Your task to perform on an android device: turn on location history Image 0: 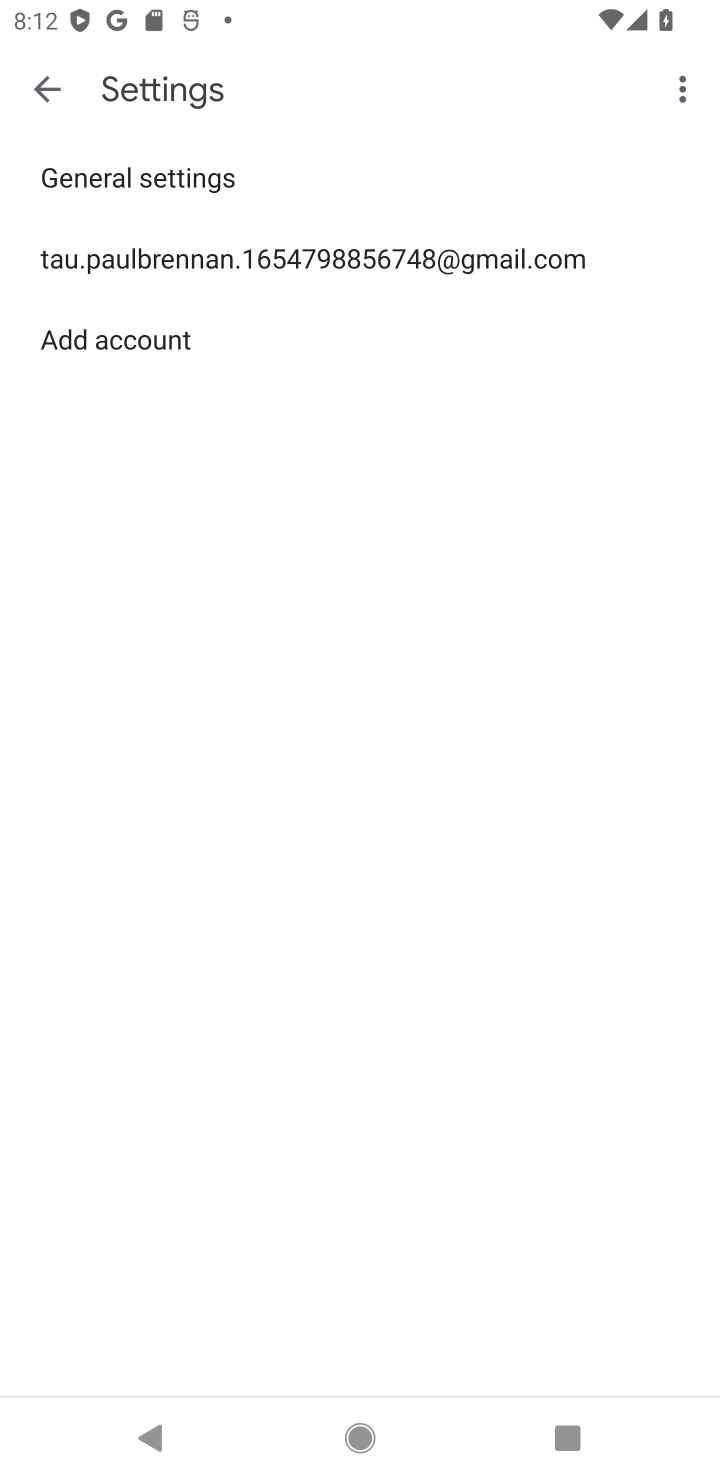
Step 0: press home button
Your task to perform on an android device: turn on location history Image 1: 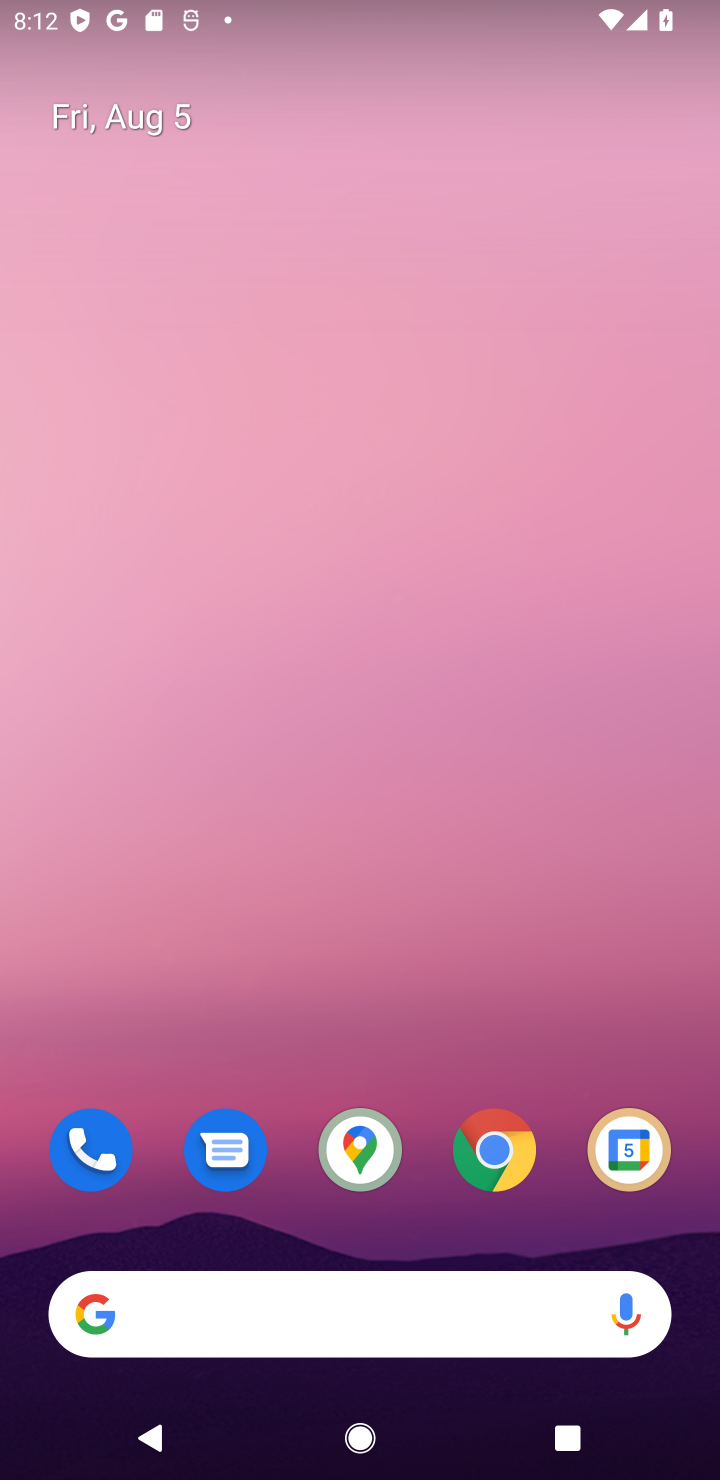
Step 1: drag from (276, 1091) to (330, 279)
Your task to perform on an android device: turn on location history Image 2: 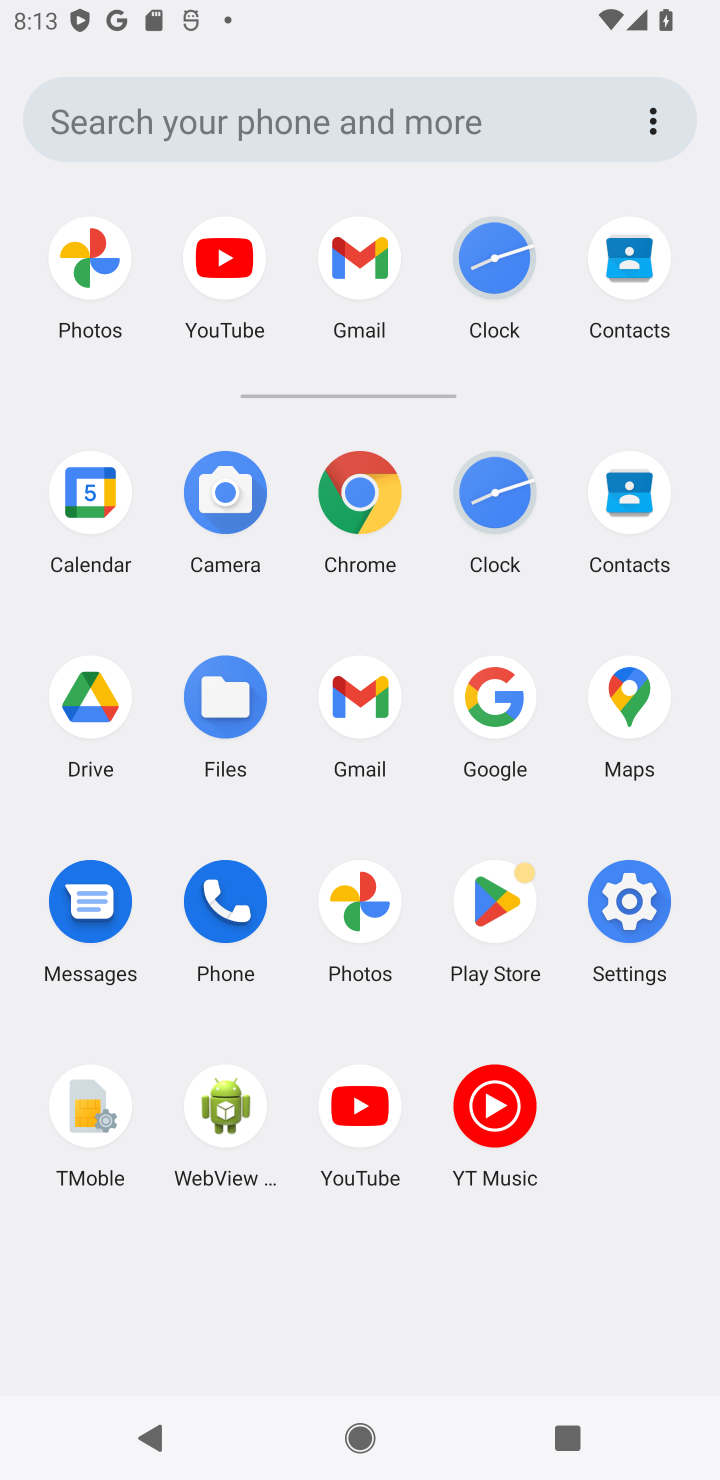
Step 2: click (630, 911)
Your task to perform on an android device: turn on location history Image 3: 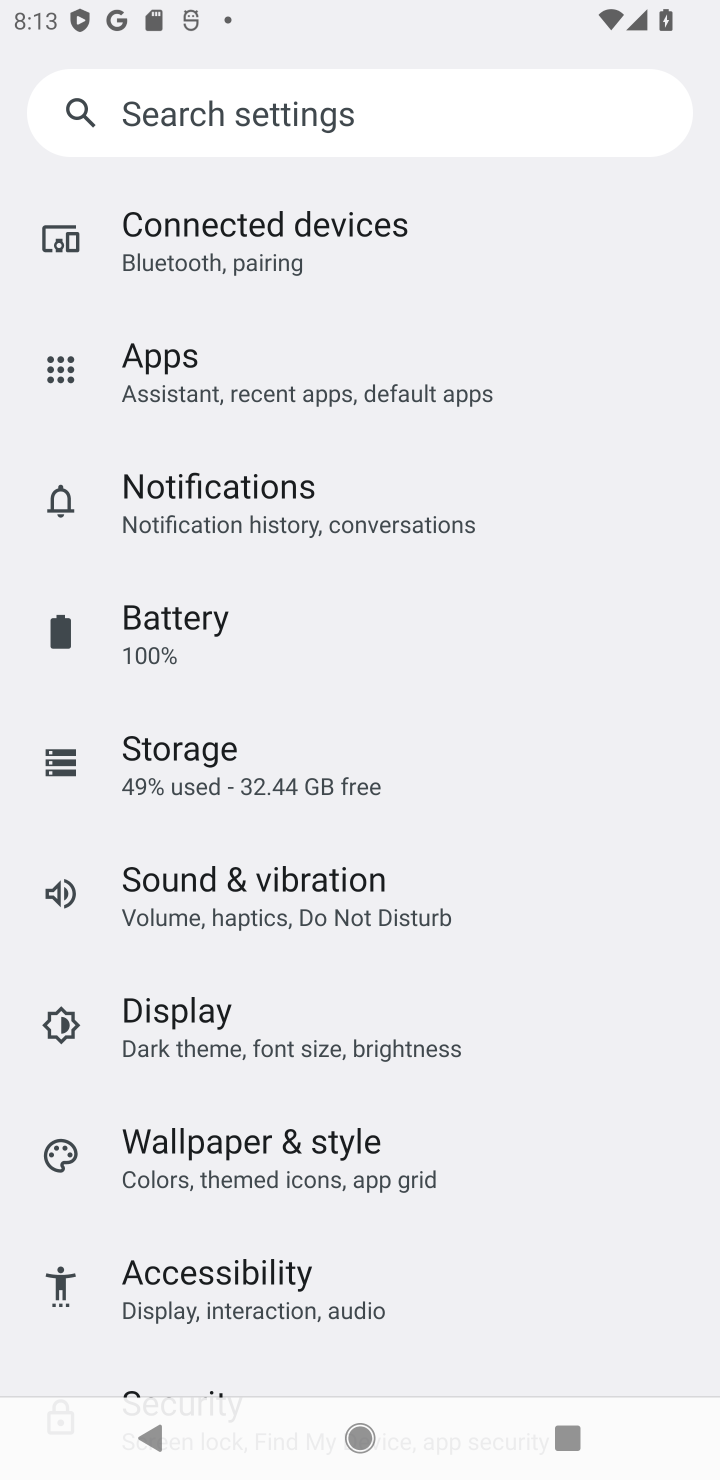
Step 3: drag from (614, 342) to (634, 781)
Your task to perform on an android device: turn on location history Image 4: 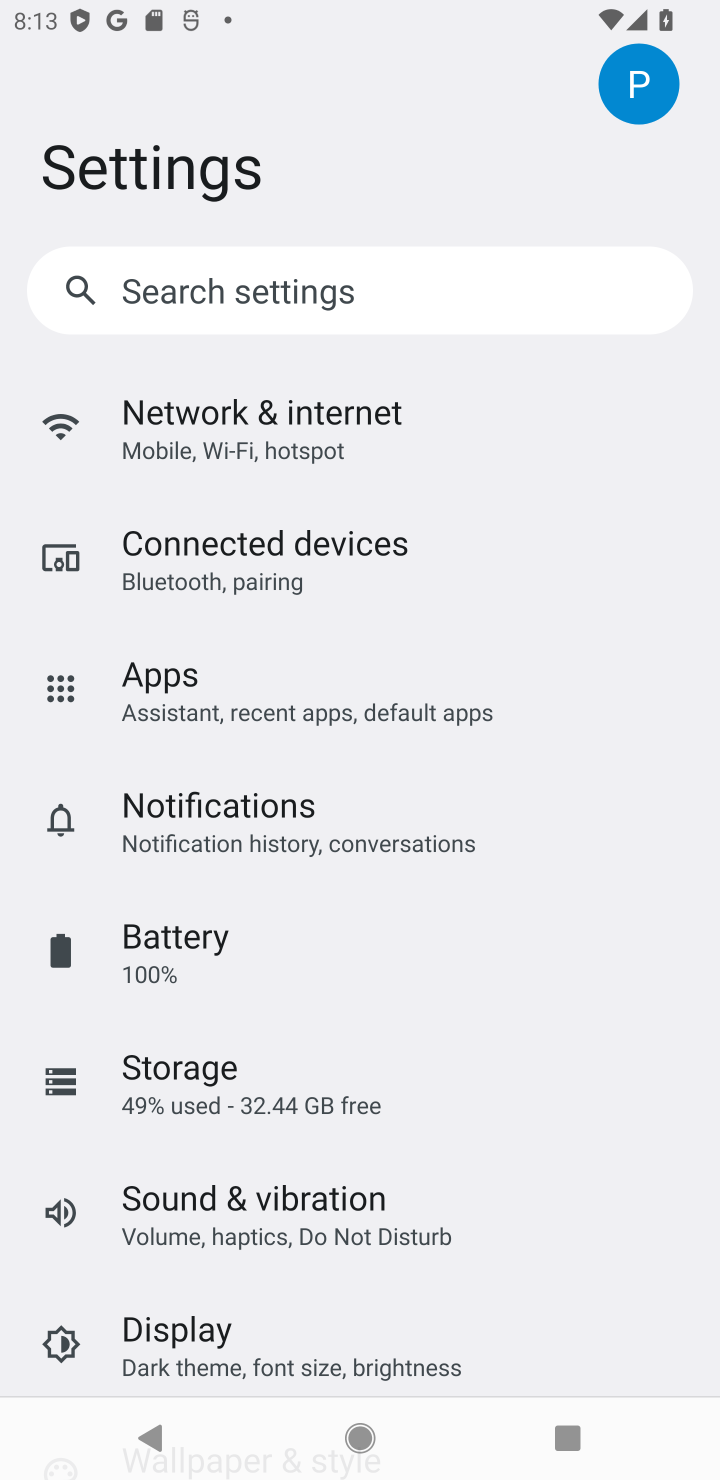
Step 4: drag from (601, 413) to (595, 878)
Your task to perform on an android device: turn on location history Image 5: 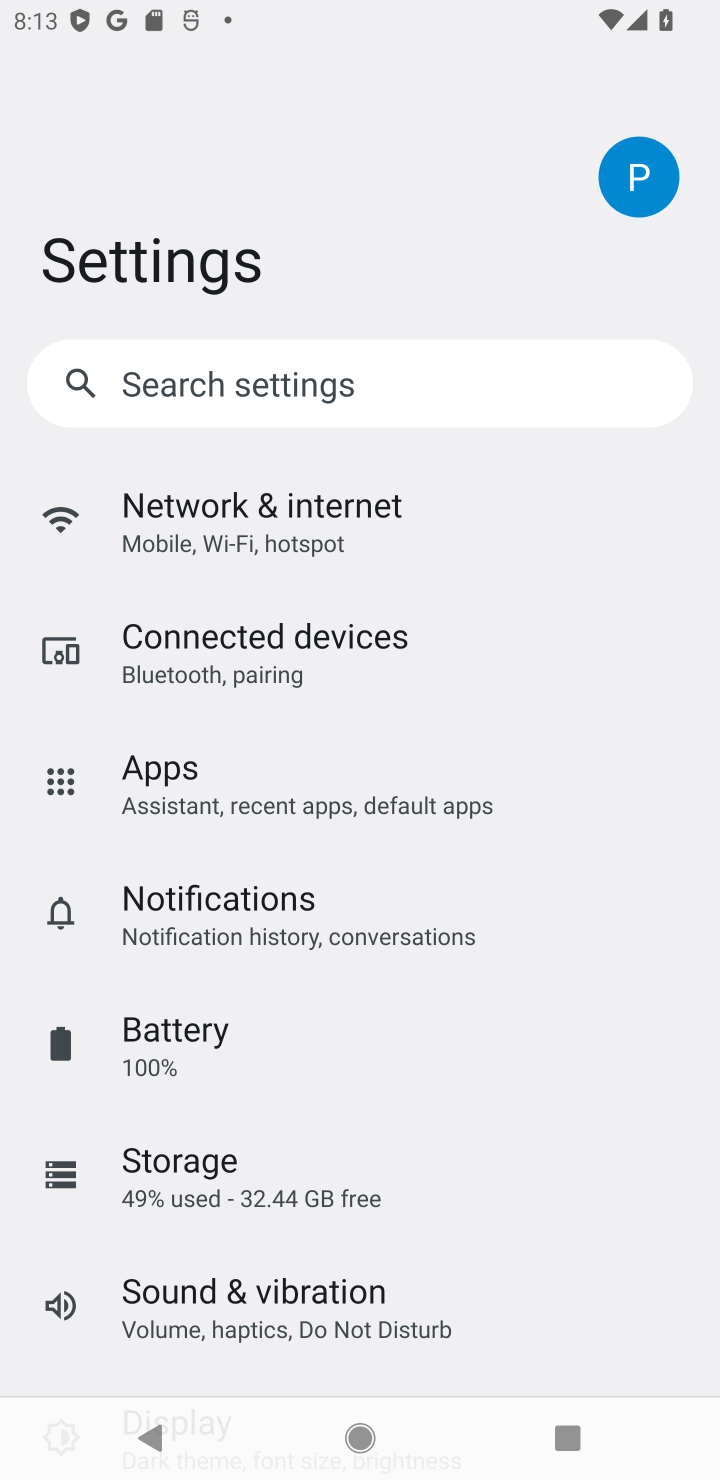
Step 5: drag from (581, 851) to (586, 471)
Your task to perform on an android device: turn on location history Image 6: 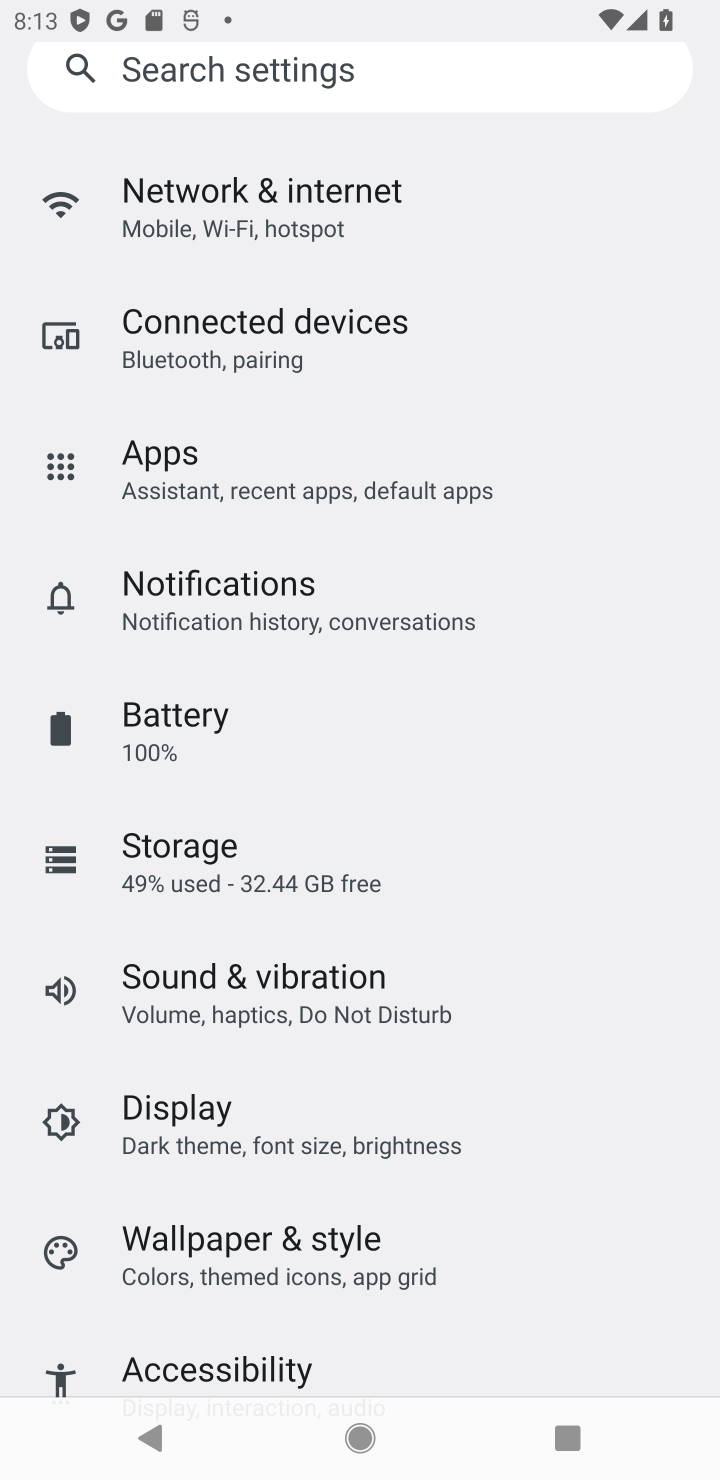
Step 6: drag from (586, 805) to (576, 544)
Your task to perform on an android device: turn on location history Image 7: 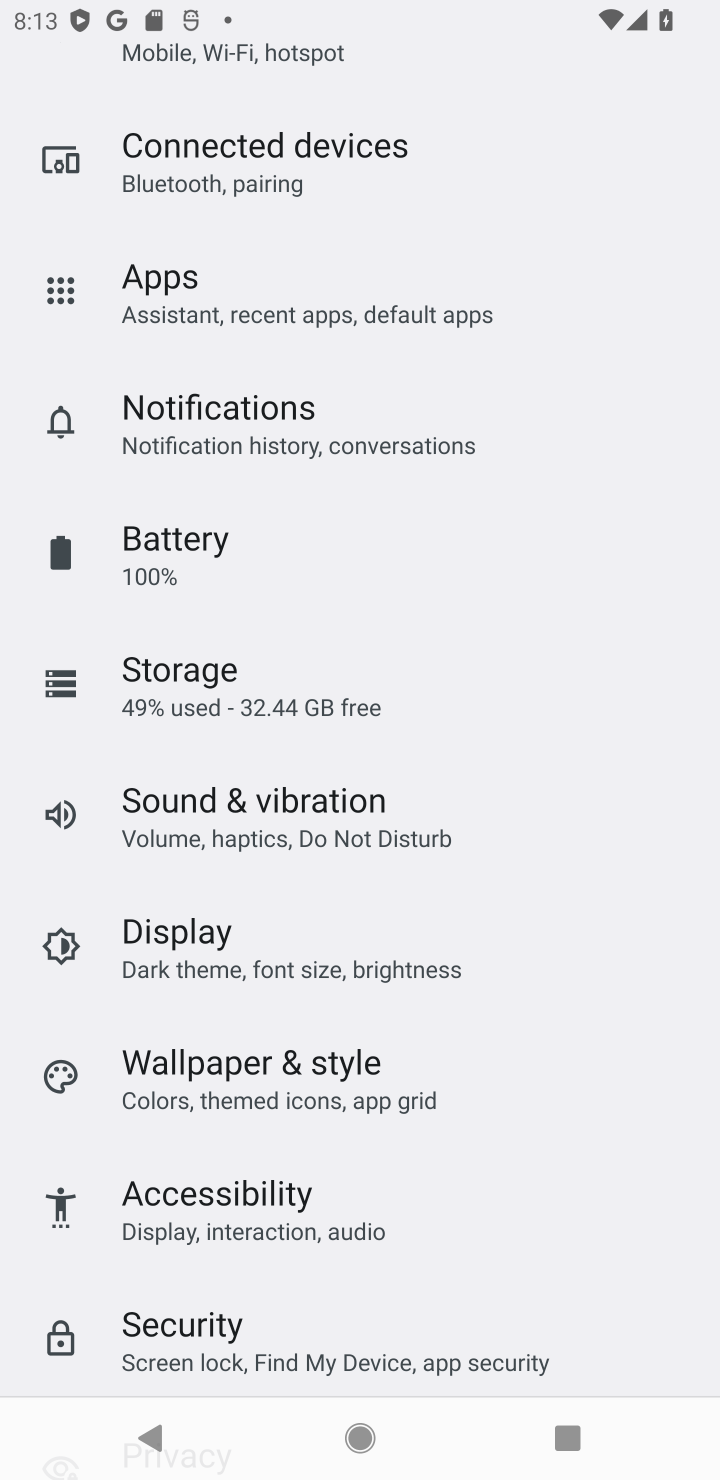
Step 7: drag from (578, 893) to (566, 458)
Your task to perform on an android device: turn on location history Image 8: 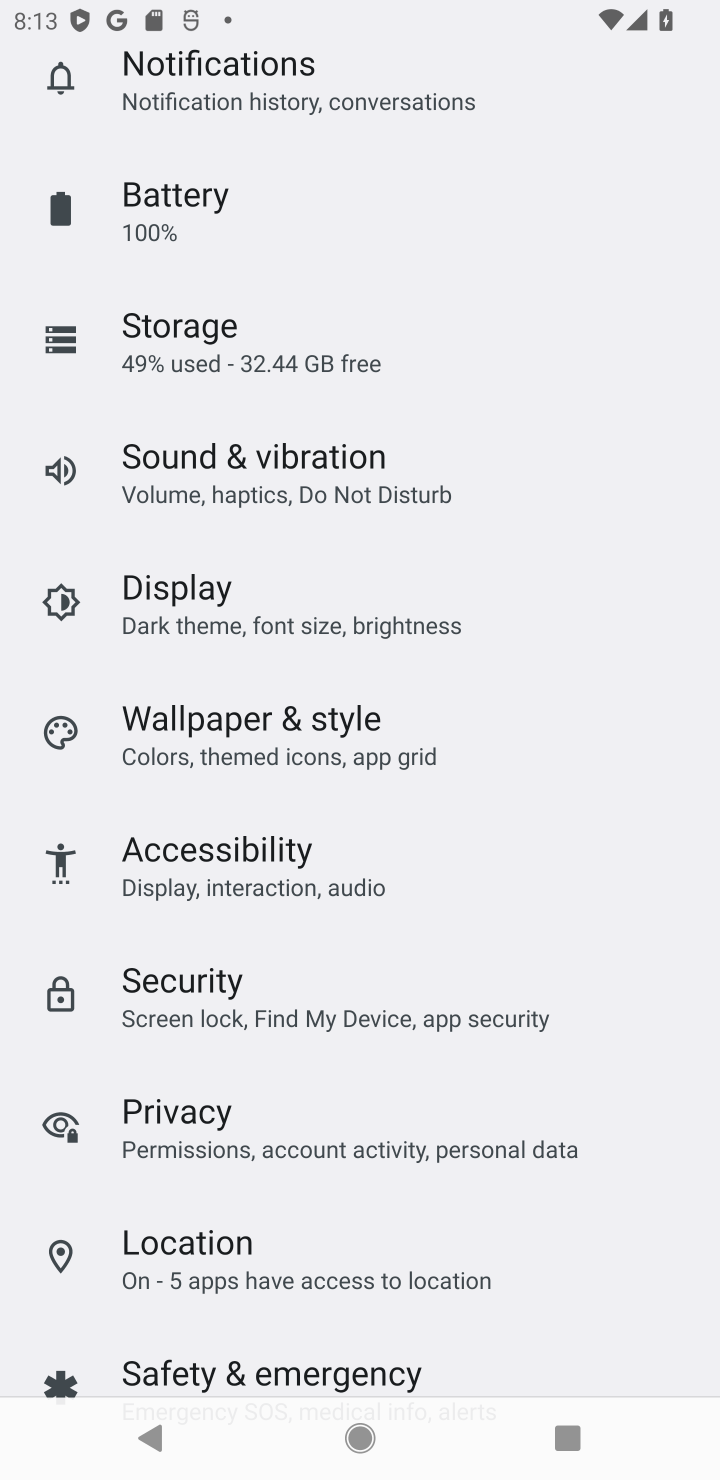
Step 8: drag from (574, 837) to (585, 573)
Your task to perform on an android device: turn on location history Image 9: 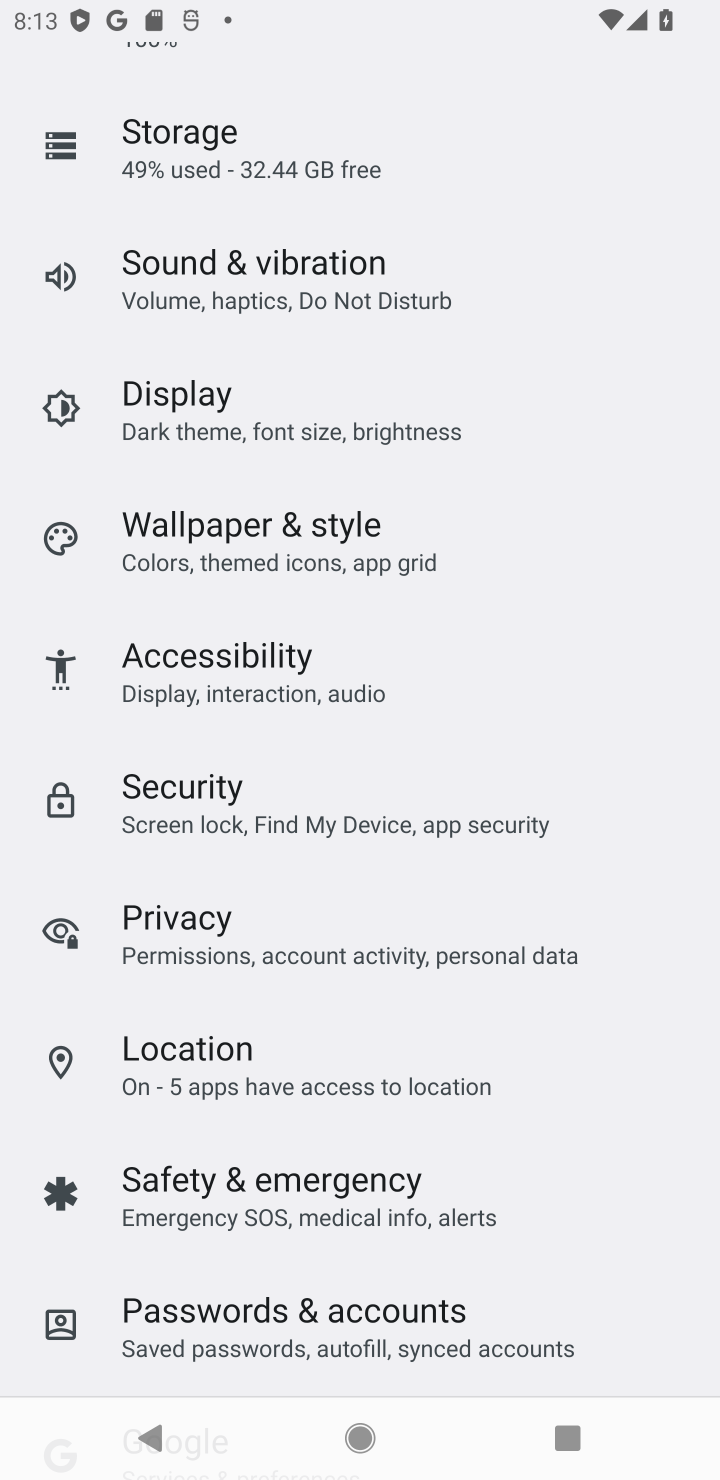
Step 9: drag from (585, 866) to (592, 601)
Your task to perform on an android device: turn on location history Image 10: 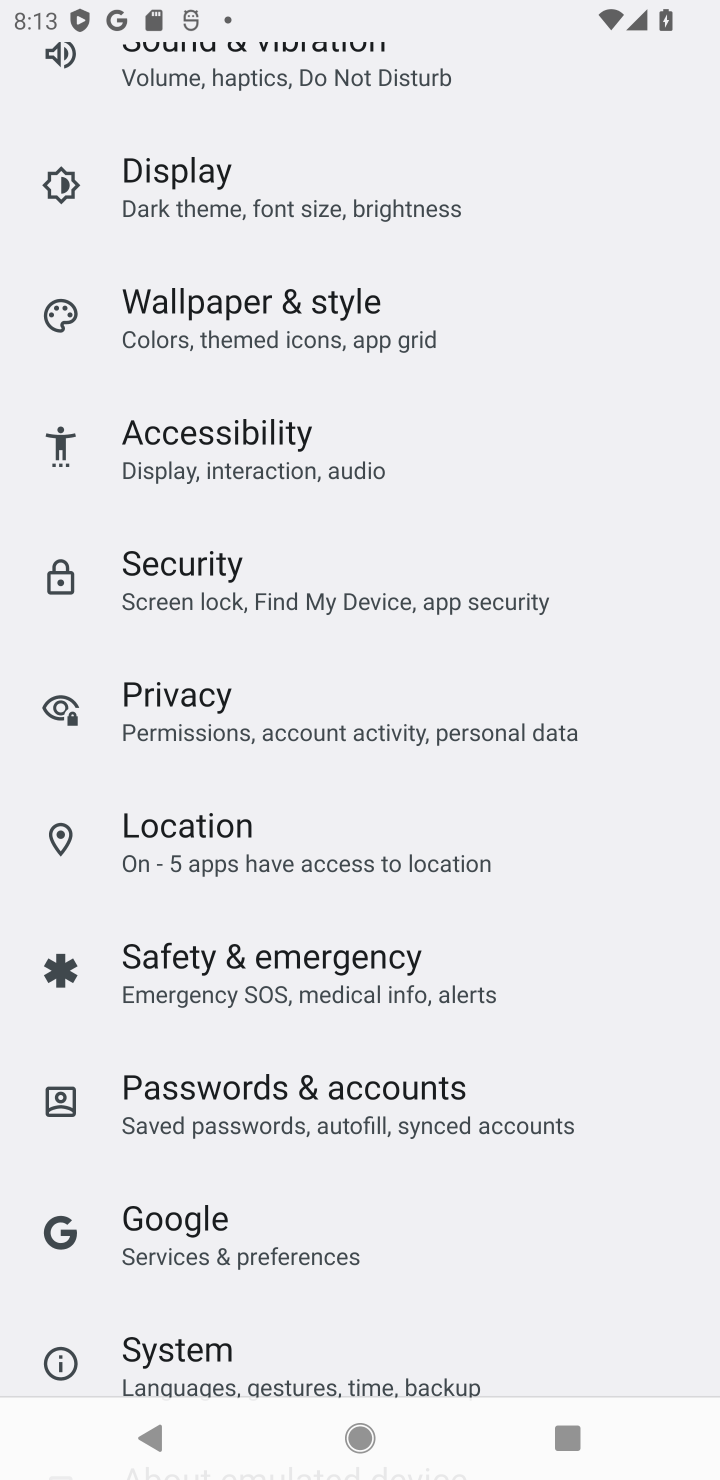
Step 10: click (541, 858)
Your task to perform on an android device: turn on location history Image 11: 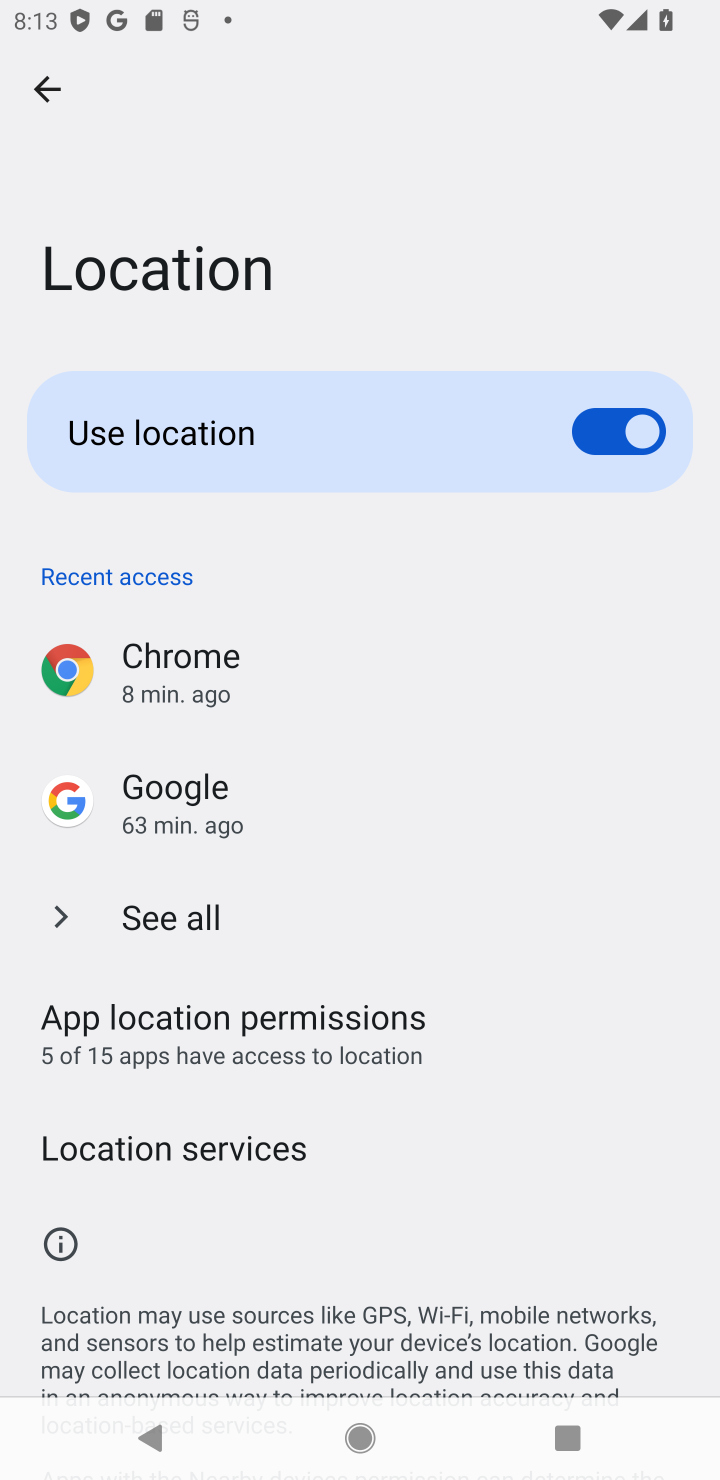
Step 11: click (330, 1140)
Your task to perform on an android device: turn on location history Image 12: 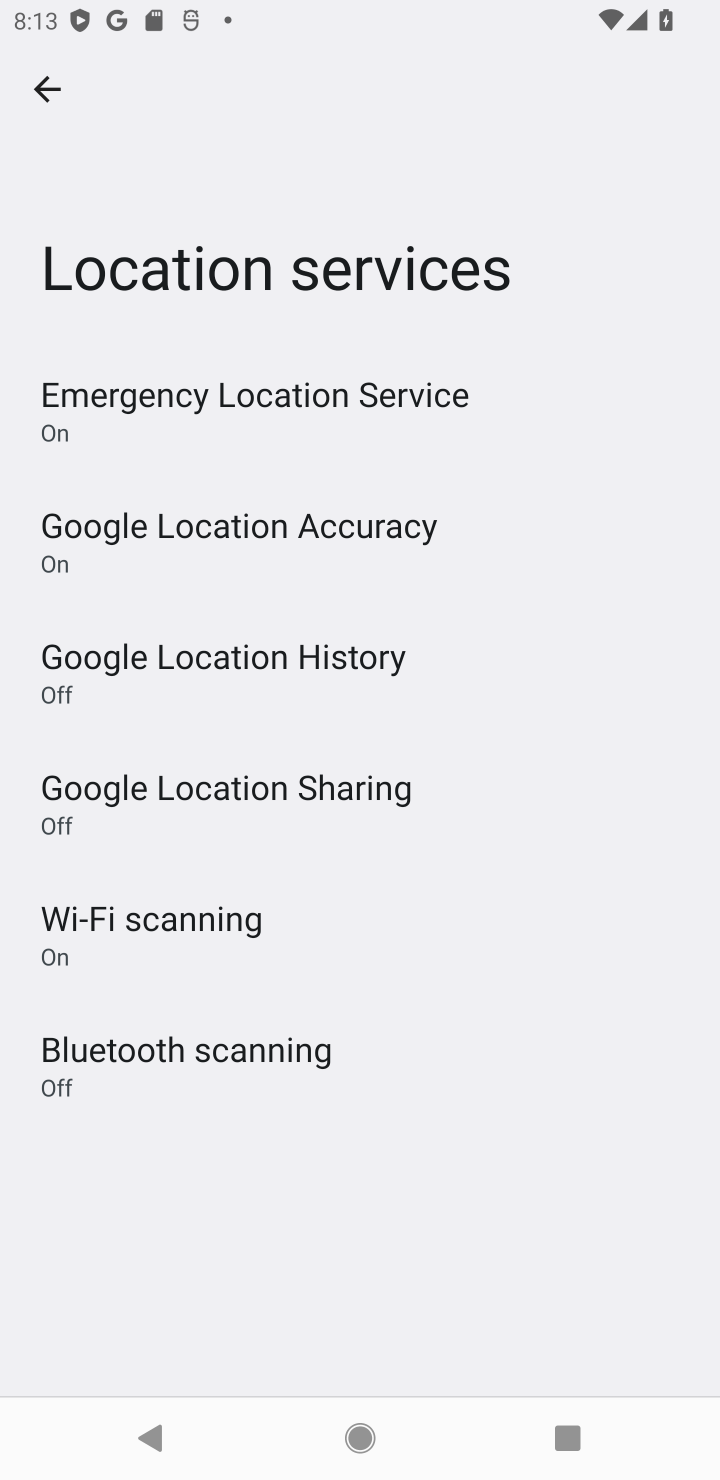
Step 12: click (315, 685)
Your task to perform on an android device: turn on location history Image 13: 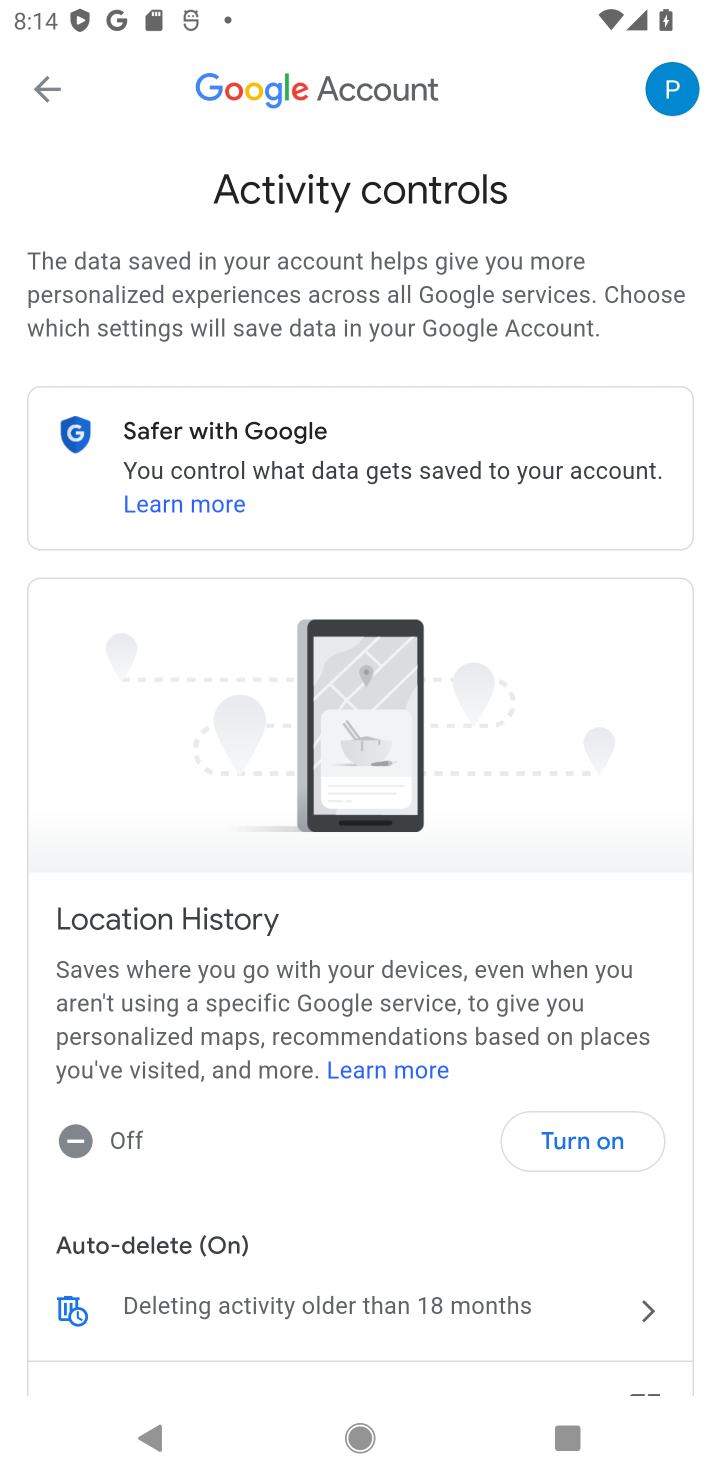
Step 13: click (571, 1138)
Your task to perform on an android device: turn on location history Image 14: 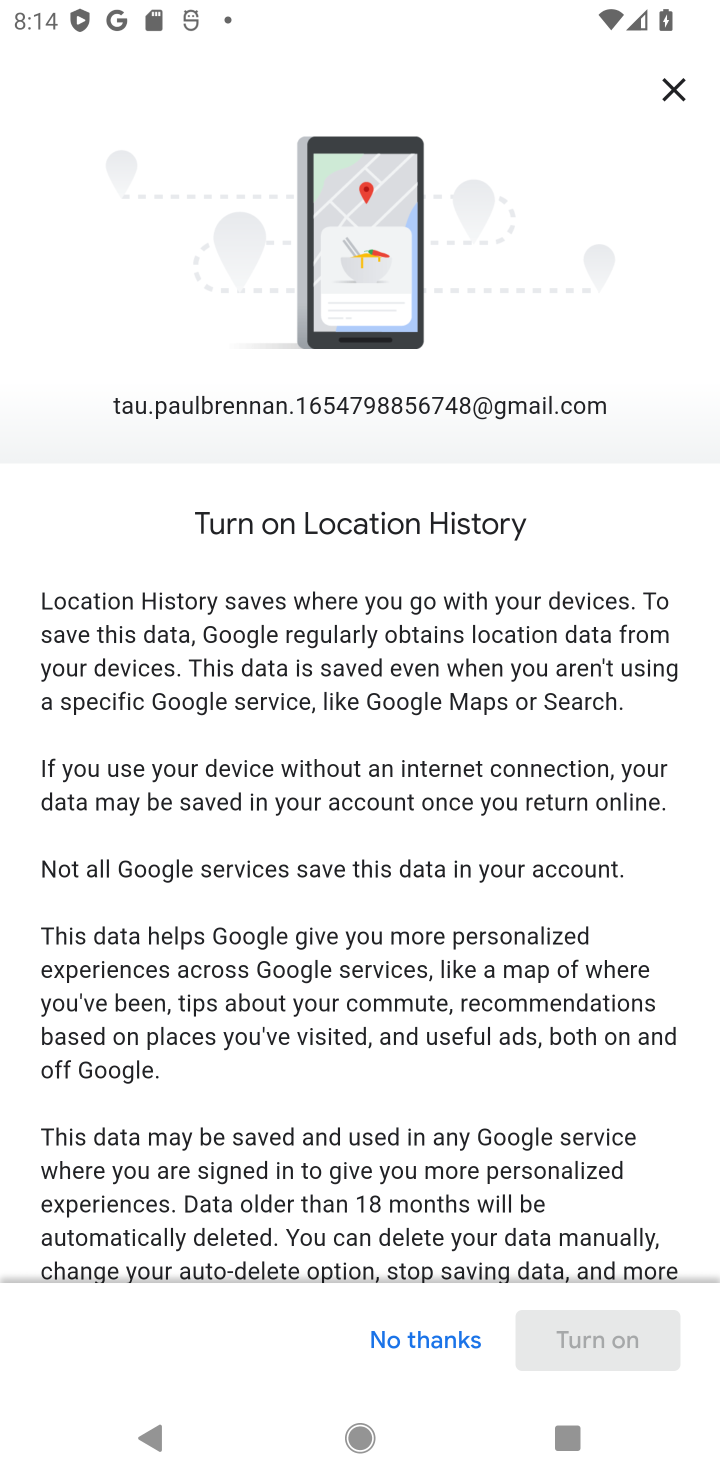
Step 14: drag from (487, 1144) to (500, 764)
Your task to perform on an android device: turn on location history Image 15: 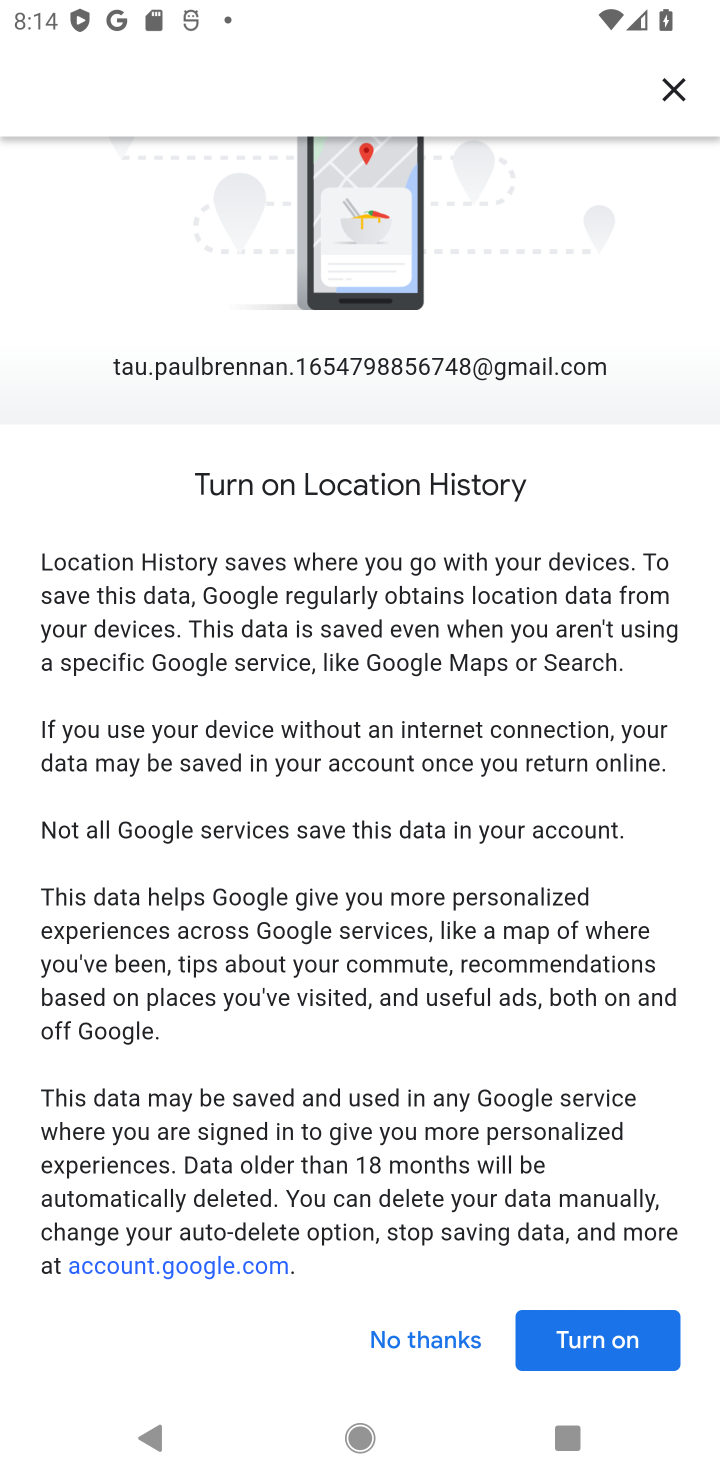
Step 15: click (595, 1333)
Your task to perform on an android device: turn on location history Image 16: 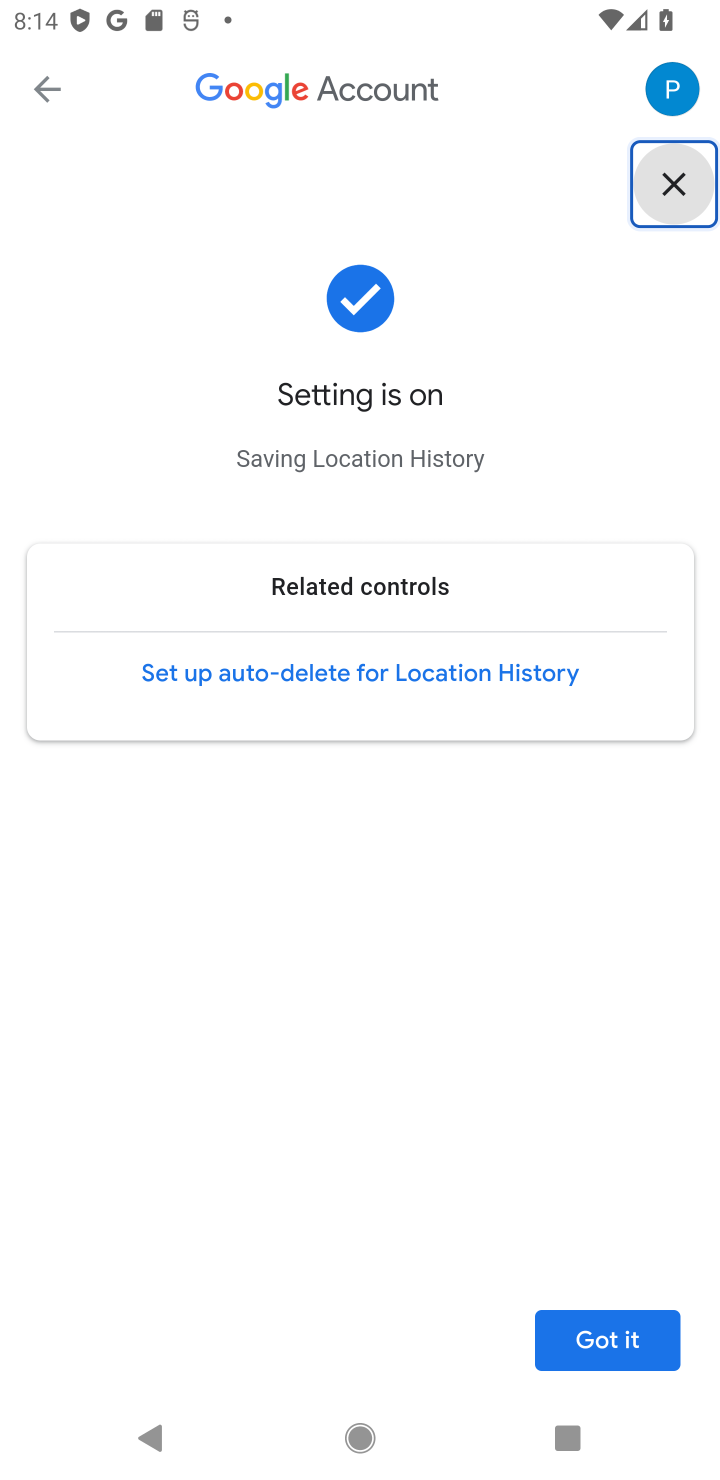
Step 16: task complete